Your task to perform on an android device: see creations saved in the google photos Image 0: 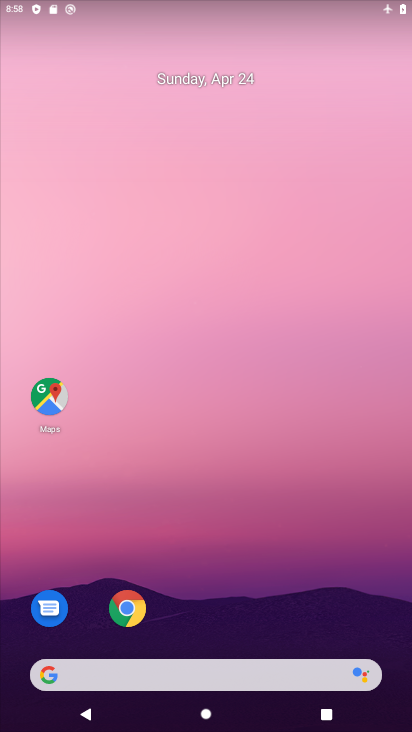
Step 0: drag from (204, 624) to (166, 116)
Your task to perform on an android device: see creations saved in the google photos Image 1: 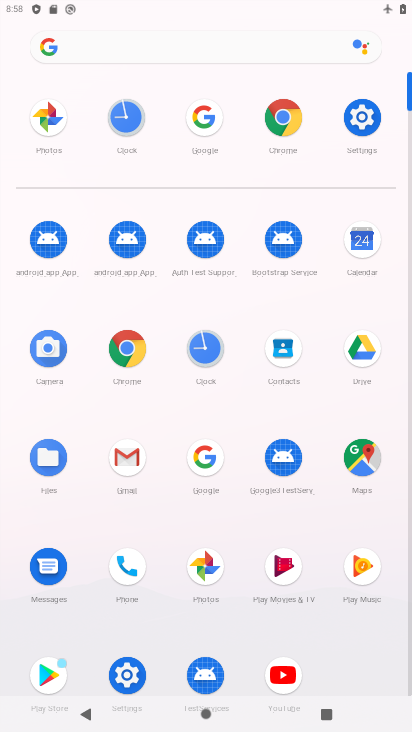
Step 1: click (51, 135)
Your task to perform on an android device: see creations saved in the google photos Image 2: 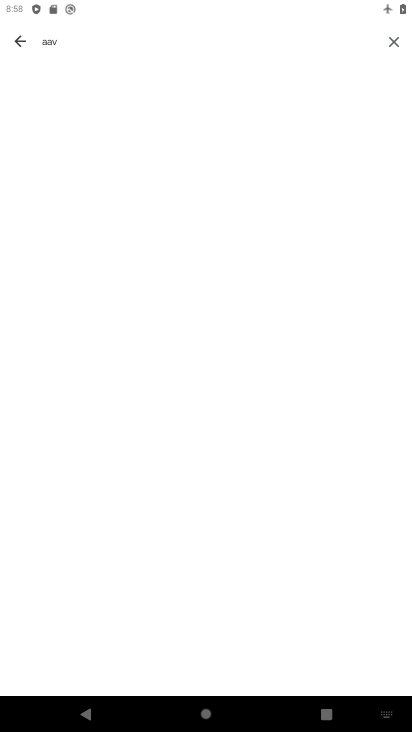
Step 2: click (389, 34)
Your task to perform on an android device: see creations saved in the google photos Image 3: 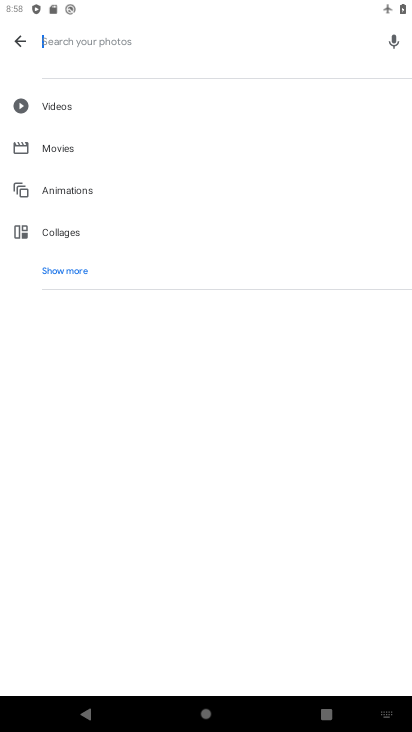
Step 3: click (71, 268)
Your task to perform on an android device: see creations saved in the google photos Image 4: 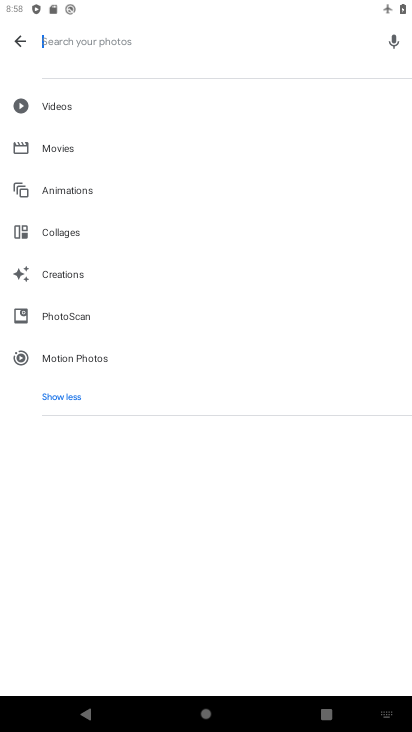
Step 4: click (83, 272)
Your task to perform on an android device: see creations saved in the google photos Image 5: 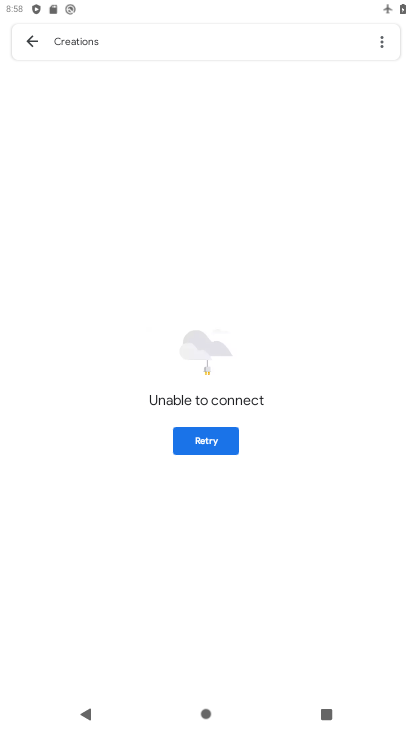
Step 5: task complete